Your task to perform on an android device: Check the news Image 0: 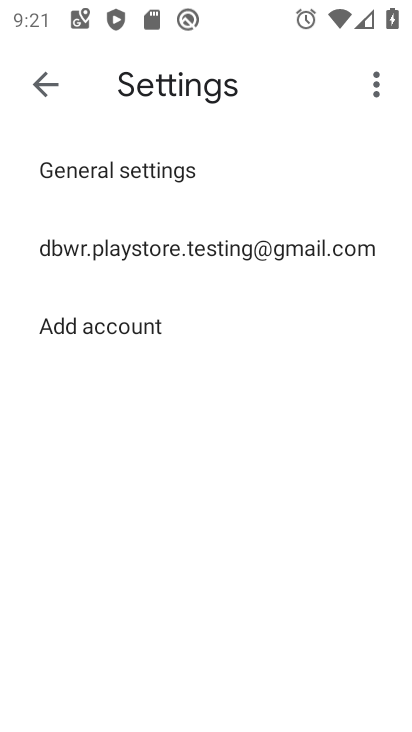
Step 0: press home button
Your task to perform on an android device: Check the news Image 1: 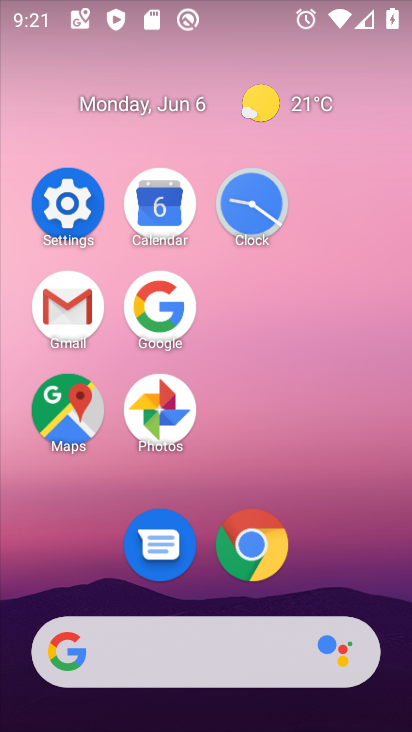
Step 1: click (153, 326)
Your task to perform on an android device: Check the news Image 2: 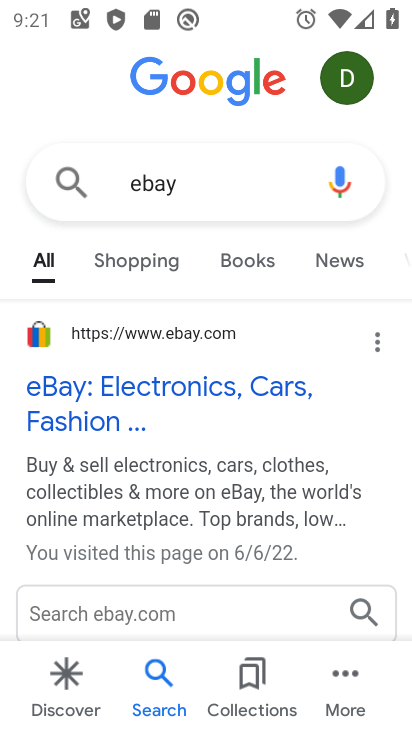
Step 2: click (213, 183)
Your task to perform on an android device: Check the news Image 3: 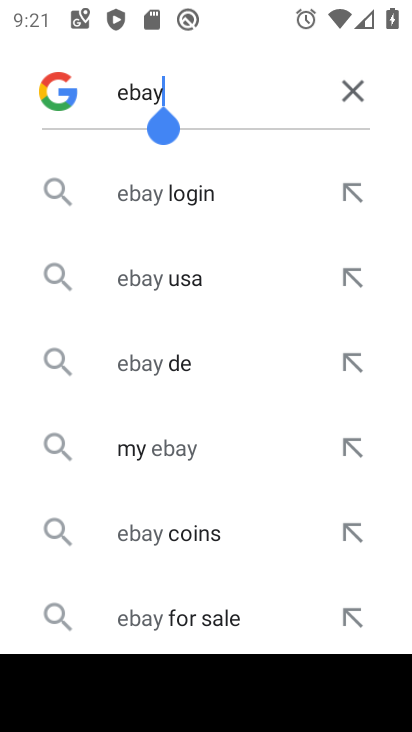
Step 3: click (344, 90)
Your task to perform on an android device: Check the news Image 4: 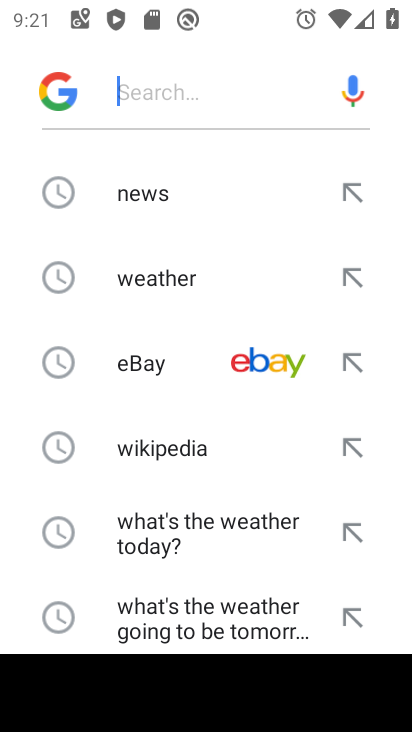
Step 4: click (149, 183)
Your task to perform on an android device: Check the news Image 5: 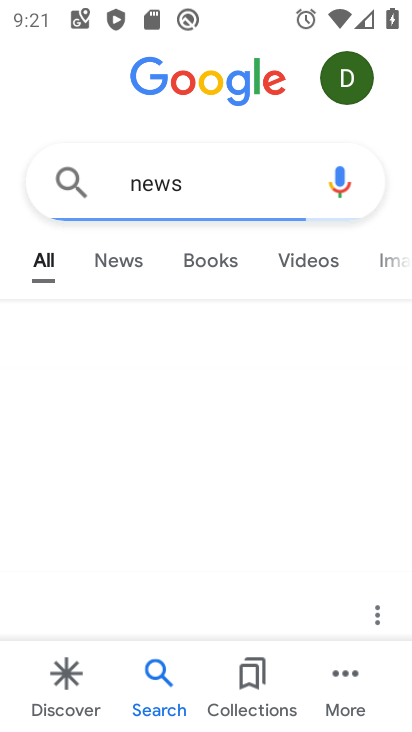
Step 5: task complete